Your task to perform on an android device: turn off sleep mode Image 0: 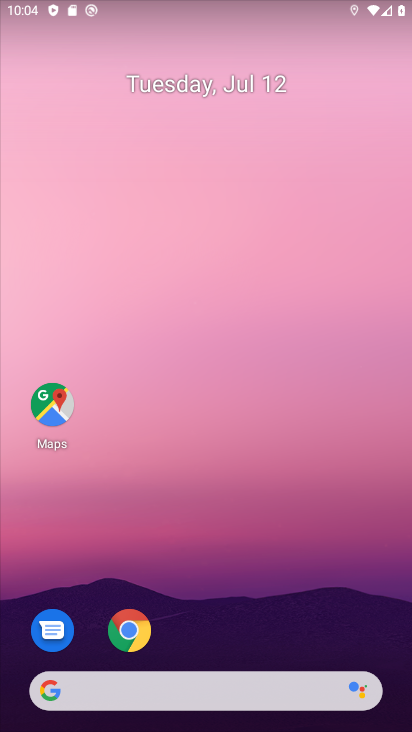
Step 0: press home button
Your task to perform on an android device: turn off sleep mode Image 1: 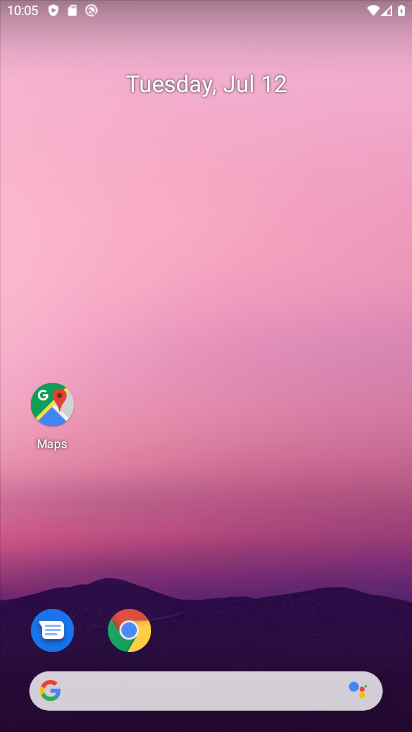
Step 1: drag from (224, 637) to (169, 71)
Your task to perform on an android device: turn off sleep mode Image 2: 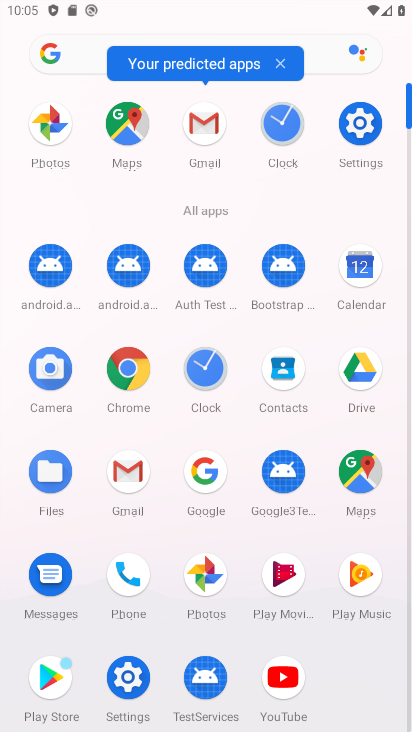
Step 2: click (356, 118)
Your task to perform on an android device: turn off sleep mode Image 3: 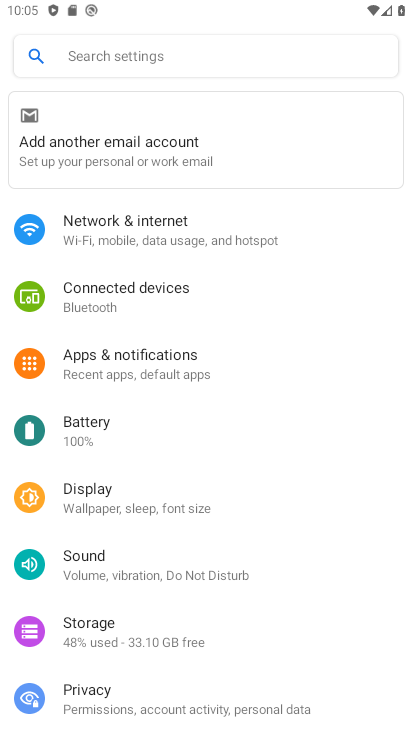
Step 3: click (151, 505)
Your task to perform on an android device: turn off sleep mode Image 4: 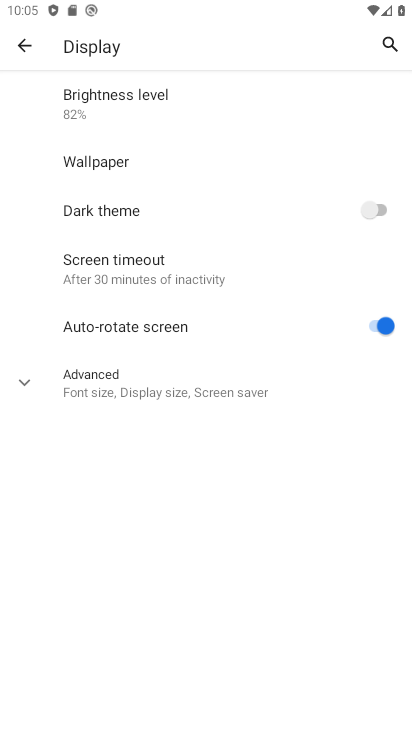
Step 4: click (240, 394)
Your task to perform on an android device: turn off sleep mode Image 5: 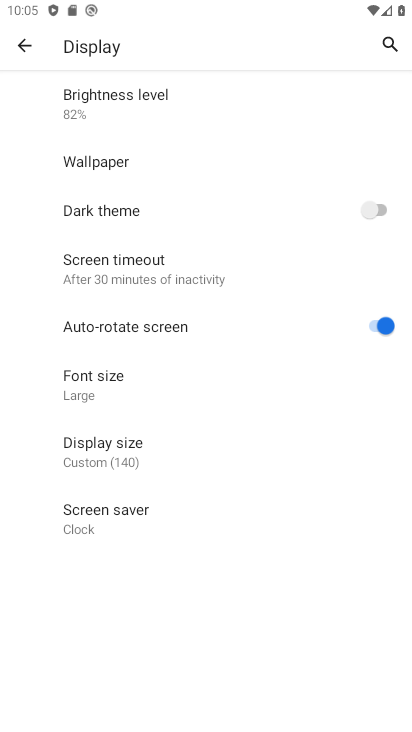
Step 5: task complete